Your task to perform on an android device: turn on data saver in the chrome app Image 0: 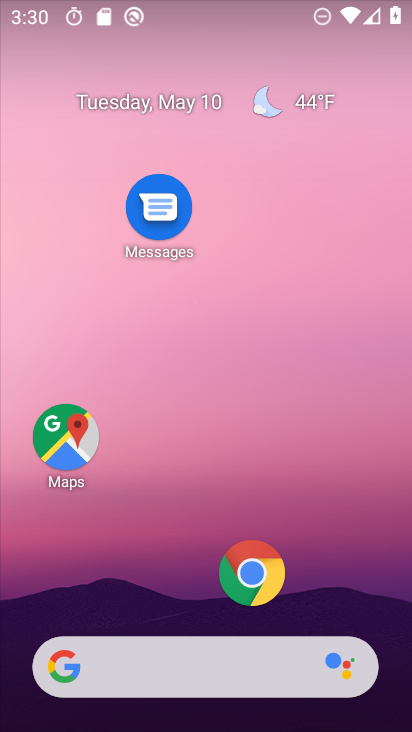
Step 0: click (237, 564)
Your task to perform on an android device: turn on data saver in the chrome app Image 1: 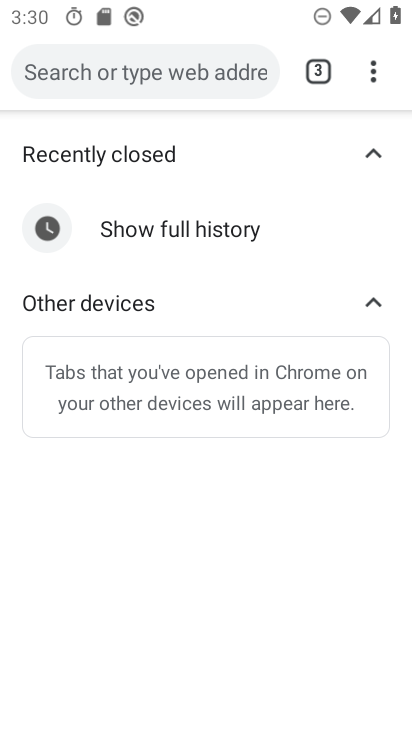
Step 1: drag from (374, 70) to (153, 595)
Your task to perform on an android device: turn on data saver in the chrome app Image 2: 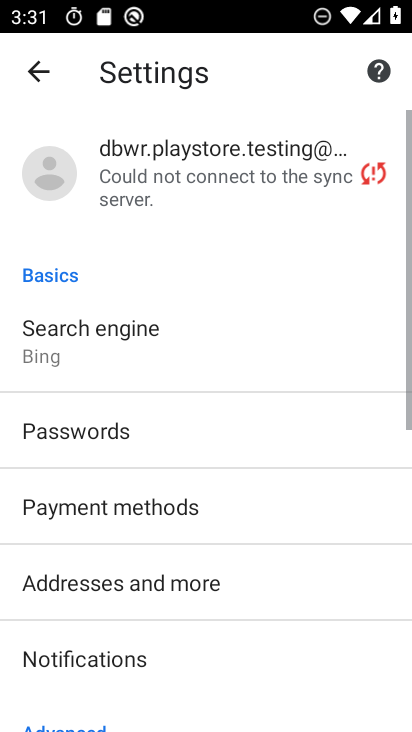
Step 2: drag from (158, 594) to (242, 298)
Your task to perform on an android device: turn on data saver in the chrome app Image 3: 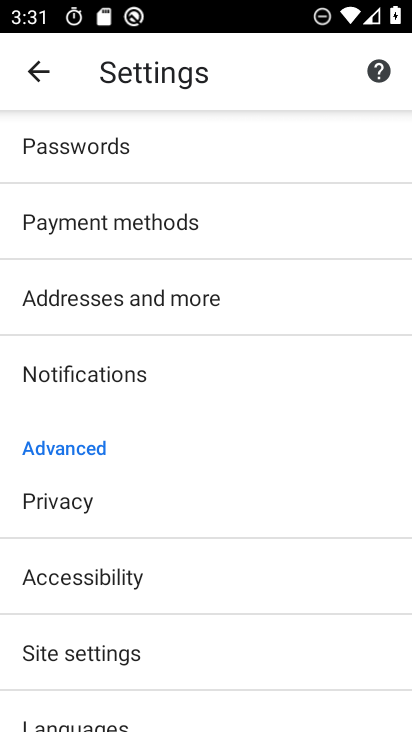
Step 3: drag from (136, 685) to (185, 464)
Your task to perform on an android device: turn on data saver in the chrome app Image 4: 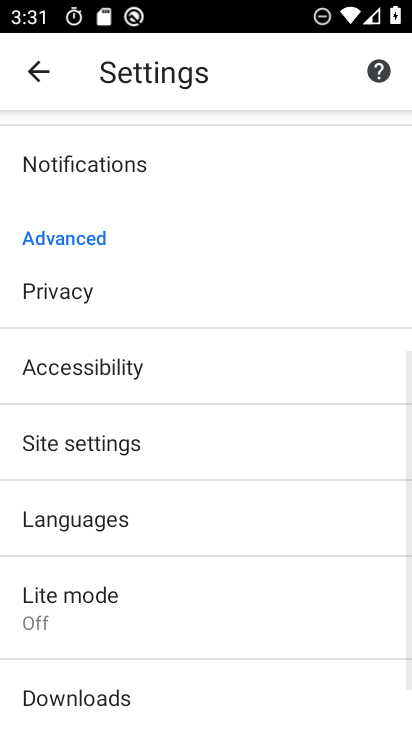
Step 4: click (139, 595)
Your task to perform on an android device: turn on data saver in the chrome app Image 5: 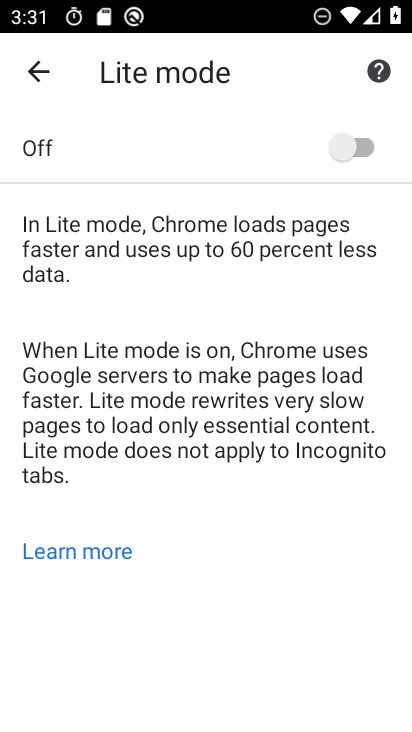
Step 5: click (365, 140)
Your task to perform on an android device: turn on data saver in the chrome app Image 6: 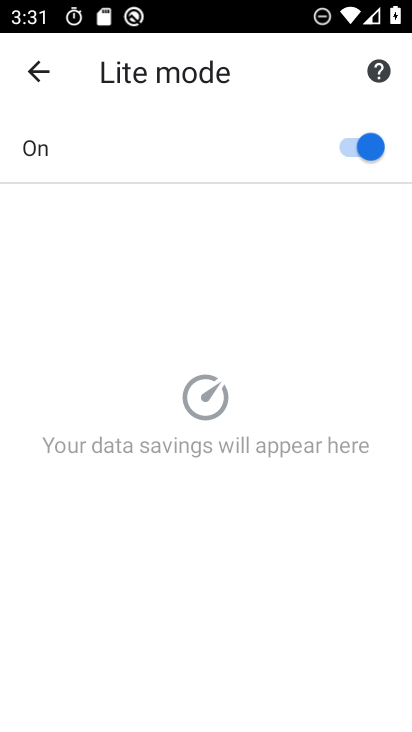
Step 6: task complete